Your task to perform on an android device: Open display settings Image 0: 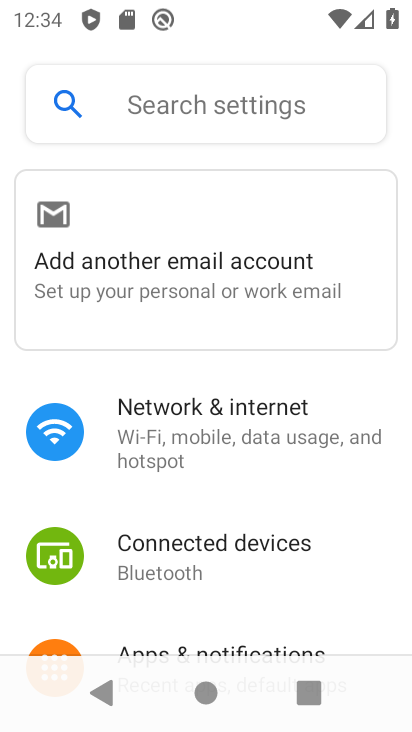
Step 0: press home button
Your task to perform on an android device: Open display settings Image 1: 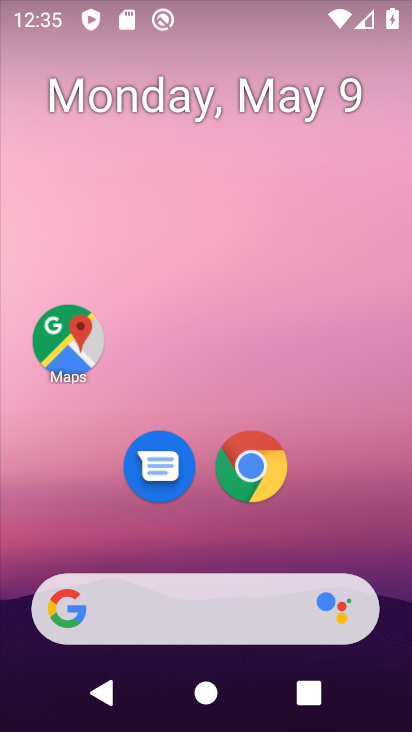
Step 1: drag from (246, 640) to (406, 151)
Your task to perform on an android device: Open display settings Image 2: 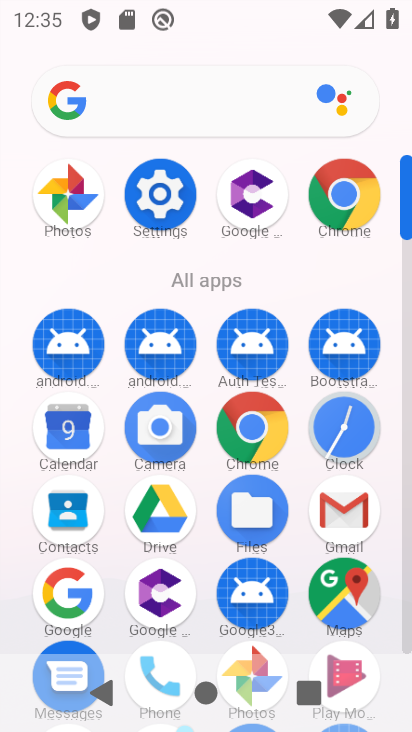
Step 2: click (171, 188)
Your task to perform on an android device: Open display settings Image 3: 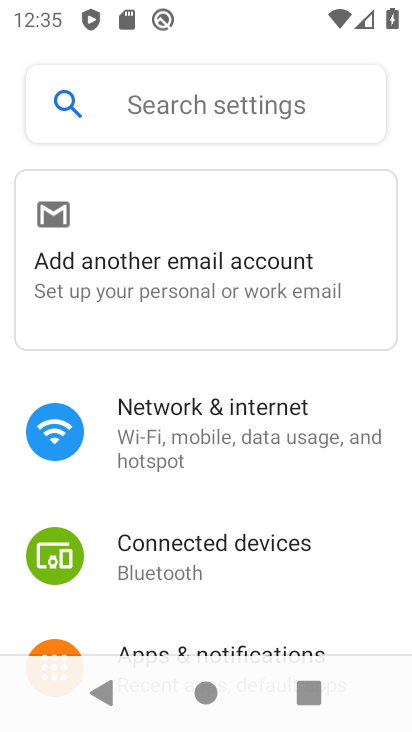
Step 3: drag from (172, 528) to (220, 123)
Your task to perform on an android device: Open display settings Image 4: 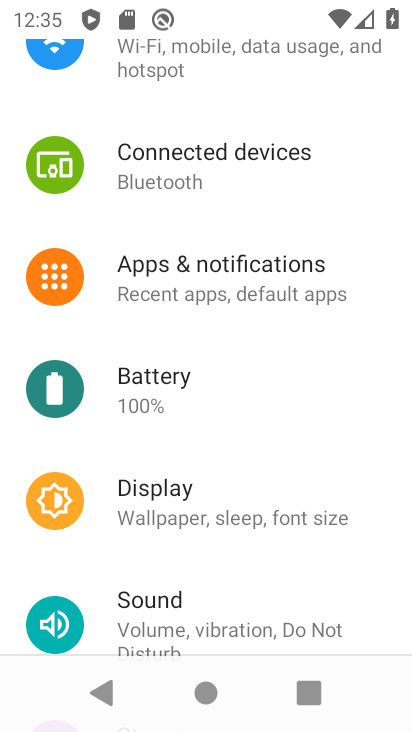
Step 4: drag from (201, 503) to (202, 289)
Your task to perform on an android device: Open display settings Image 5: 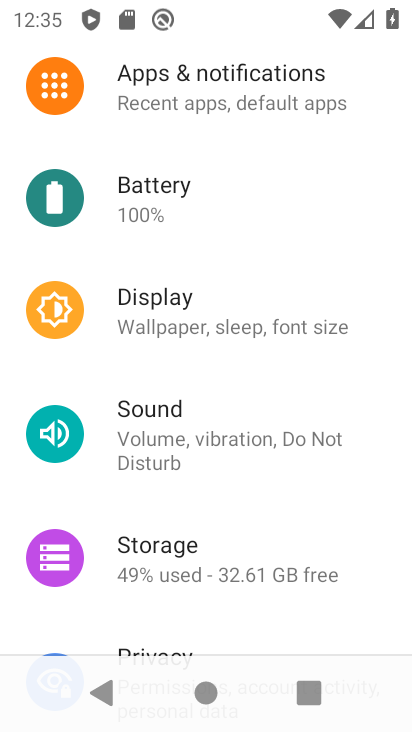
Step 5: click (228, 326)
Your task to perform on an android device: Open display settings Image 6: 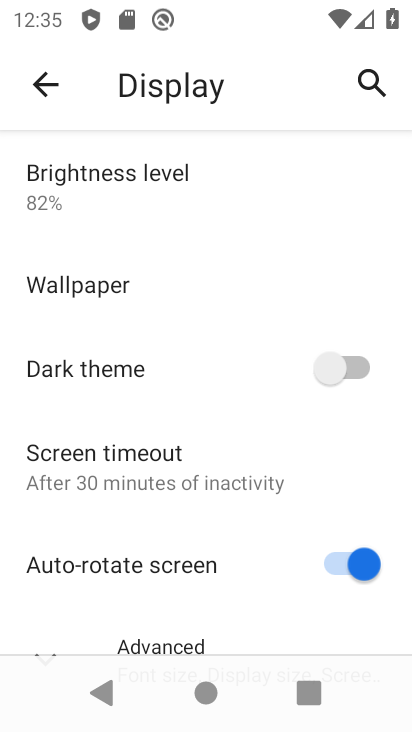
Step 6: drag from (149, 519) to (193, 316)
Your task to perform on an android device: Open display settings Image 7: 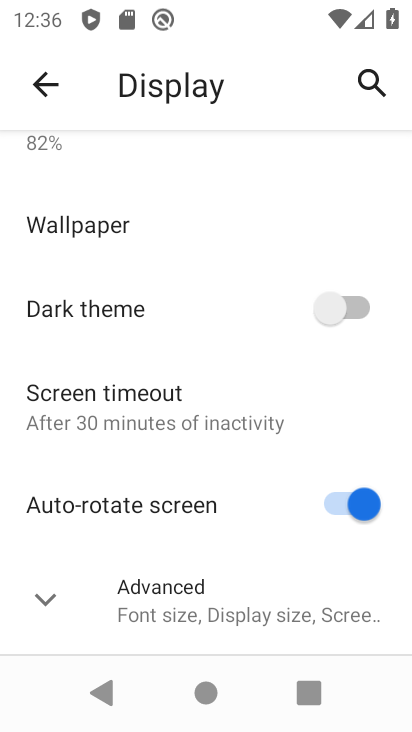
Step 7: drag from (177, 592) to (188, 260)
Your task to perform on an android device: Open display settings Image 8: 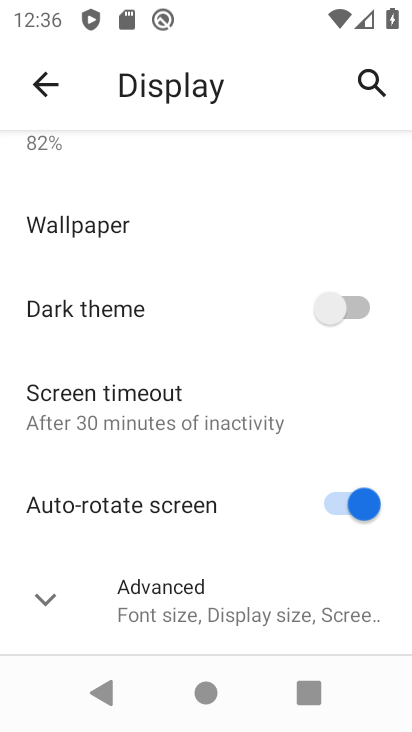
Step 8: click (189, 603)
Your task to perform on an android device: Open display settings Image 9: 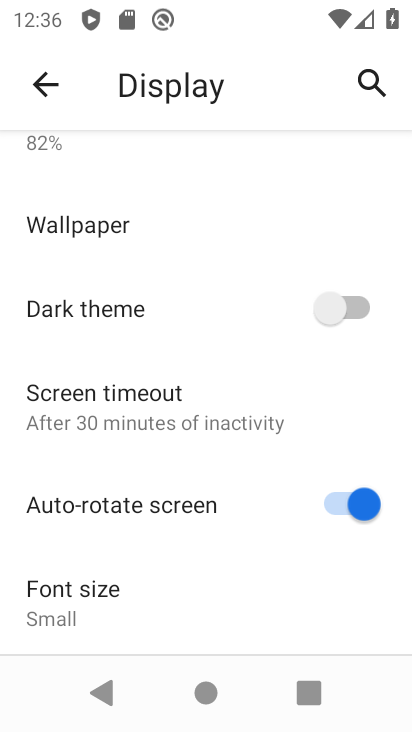
Step 9: task complete